Your task to perform on an android device: open a new tab in the chrome app Image 0: 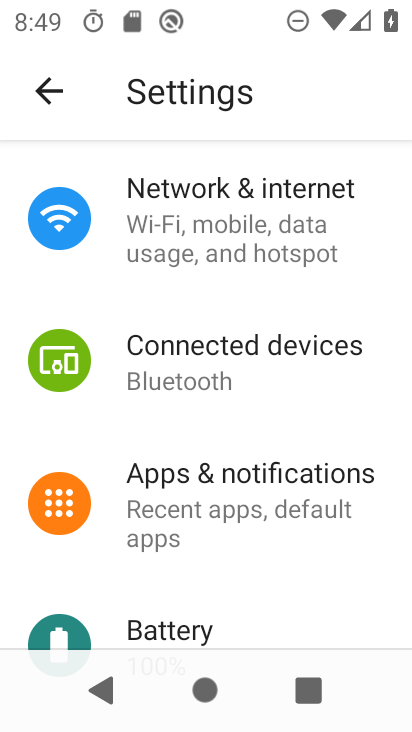
Step 0: press home button
Your task to perform on an android device: open a new tab in the chrome app Image 1: 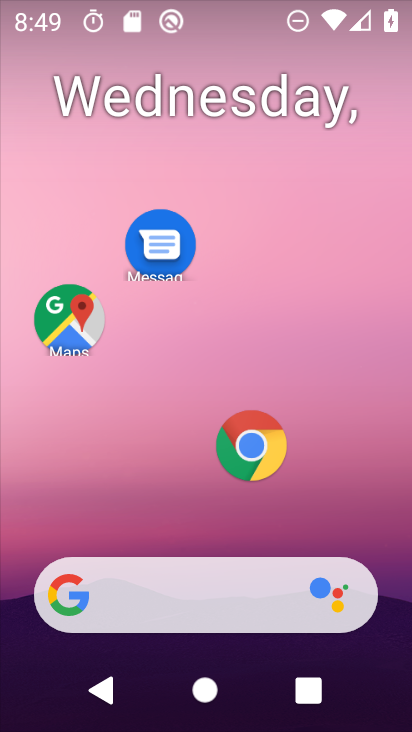
Step 1: click (248, 443)
Your task to perform on an android device: open a new tab in the chrome app Image 2: 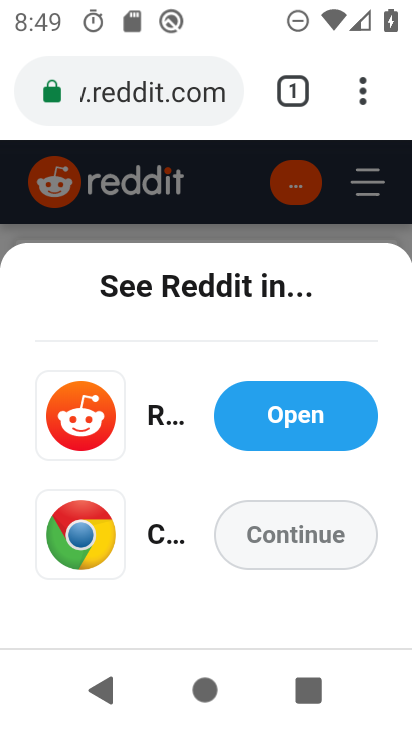
Step 2: click (300, 95)
Your task to perform on an android device: open a new tab in the chrome app Image 3: 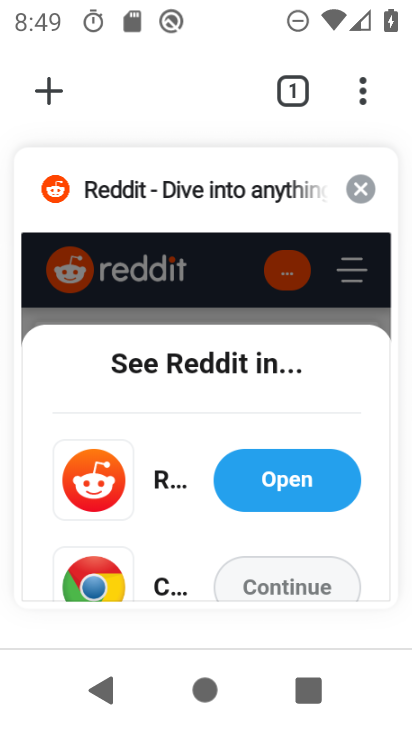
Step 3: click (47, 96)
Your task to perform on an android device: open a new tab in the chrome app Image 4: 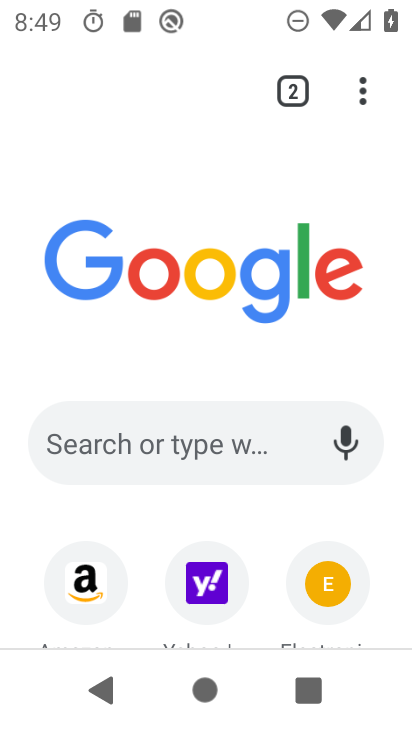
Step 4: task complete